Your task to perform on an android device: Open sound settings Image 0: 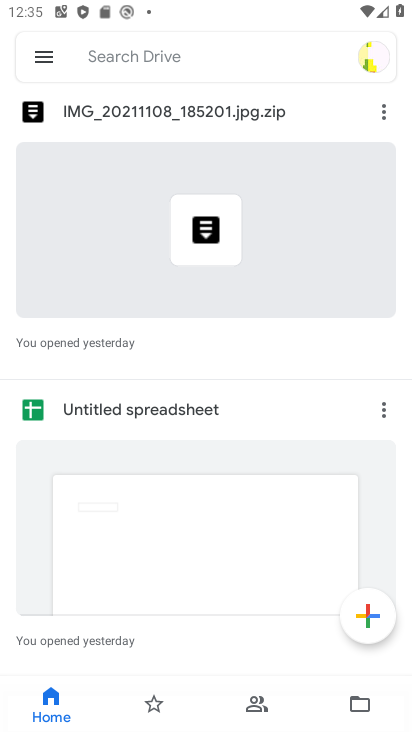
Step 0: press home button
Your task to perform on an android device: Open sound settings Image 1: 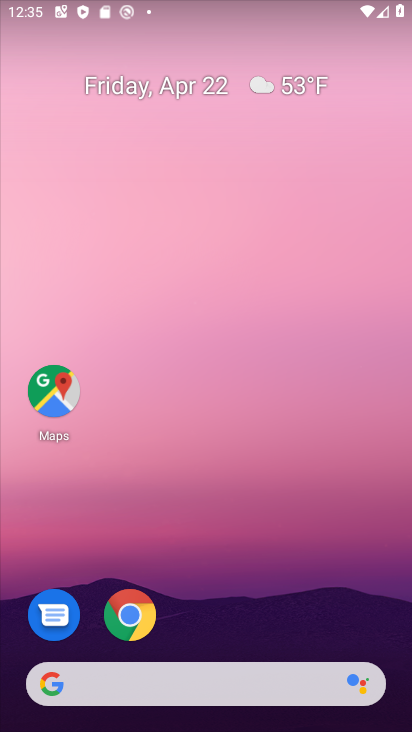
Step 1: drag from (361, 607) to (352, 35)
Your task to perform on an android device: Open sound settings Image 2: 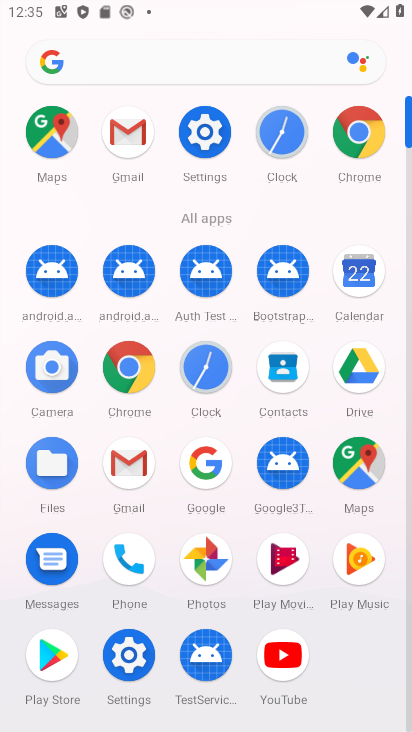
Step 2: click (196, 136)
Your task to perform on an android device: Open sound settings Image 3: 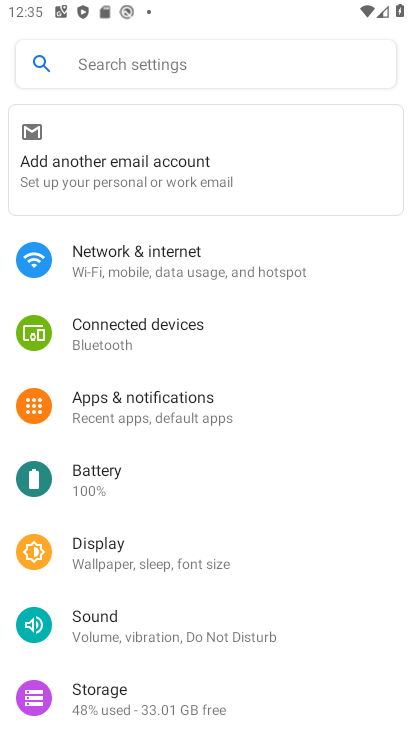
Step 3: click (94, 624)
Your task to perform on an android device: Open sound settings Image 4: 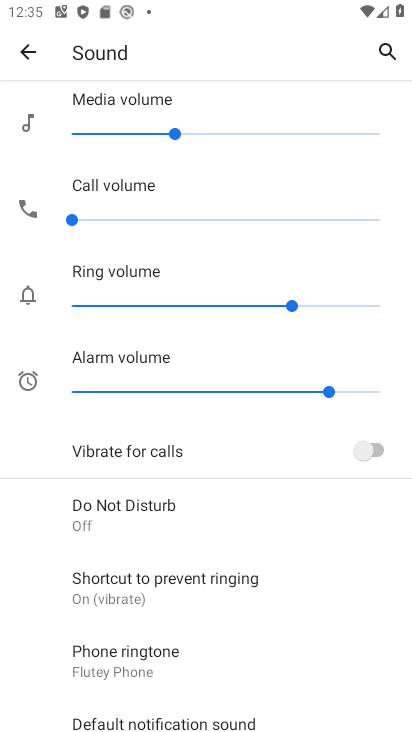
Step 4: task complete